Your task to perform on an android device: turn off notifications in google photos Image 0: 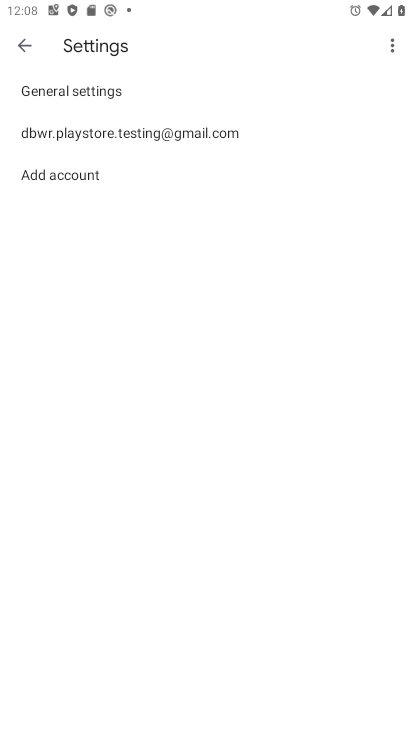
Step 0: press home button
Your task to perform on an android device: turn off notifications in google photos Image 1: 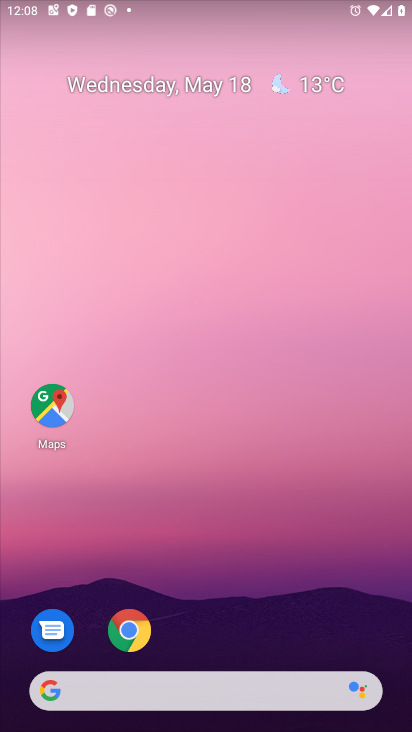
Step 1: drag from (211, 717) to (212, 194)
Your task to perform on an android device: turn off notifications in google photos Image 2: 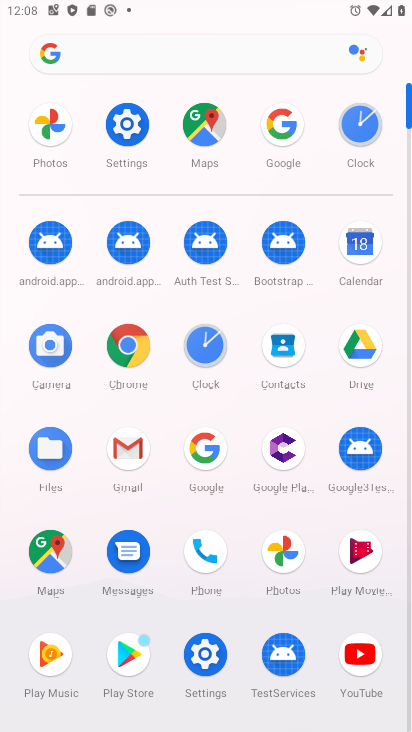
Step 2: click (284, 545)
Your task to perform on an android device: turn off notifications in google photos Image 3: 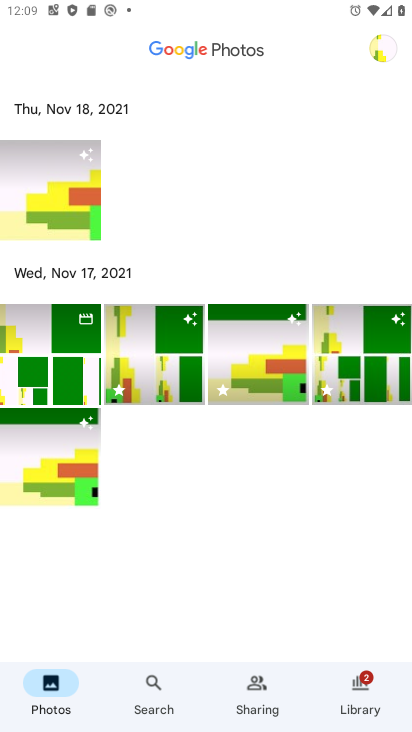
Step 3: click (379, 43)
Your task to perform on an android device: turn off notifications in google photos Image 4: 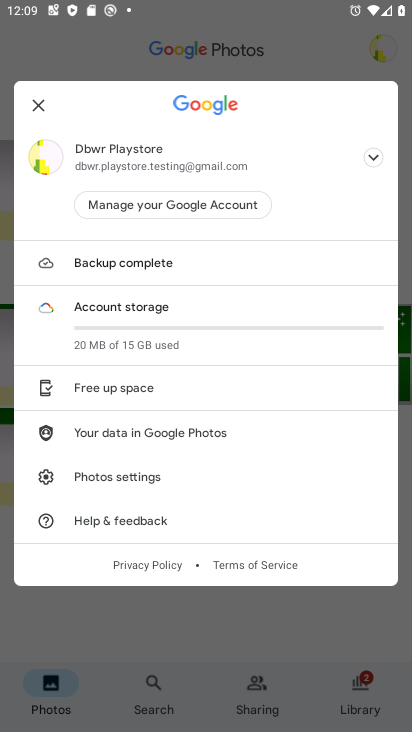
Step 4: click (103, 475)
Your task to perform on an android device: turn off notifications in google photos Image 5: 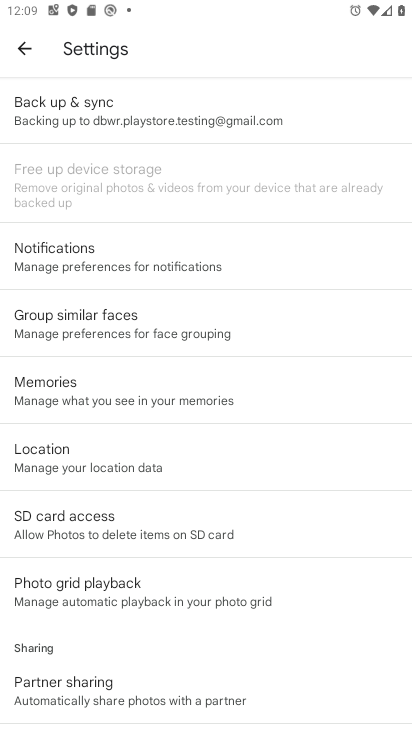
Step 5: click (92, 262)
Your task to perform on an android device: turn off notifications in google photos Image 6: 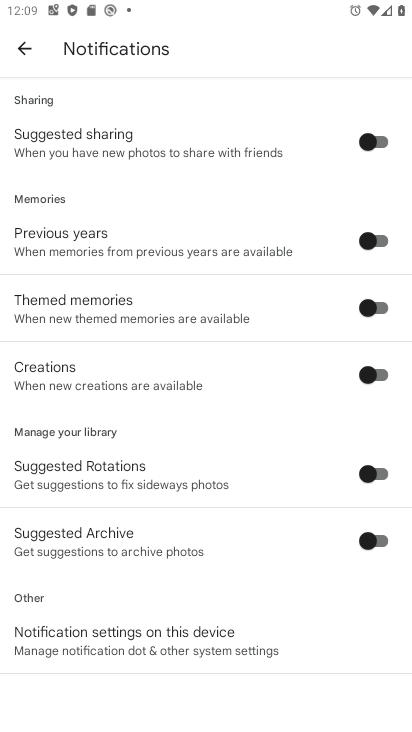
Step 6: click (138, 635)
Your task to perform on an android device: turn off notifications in google photos Image 7: 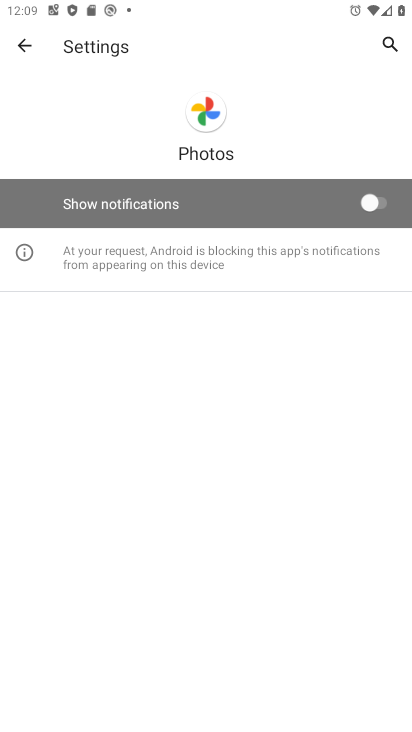
Step 7: task complete